Your task to perform on an android device: Open Chrome and go to settings Image 0: 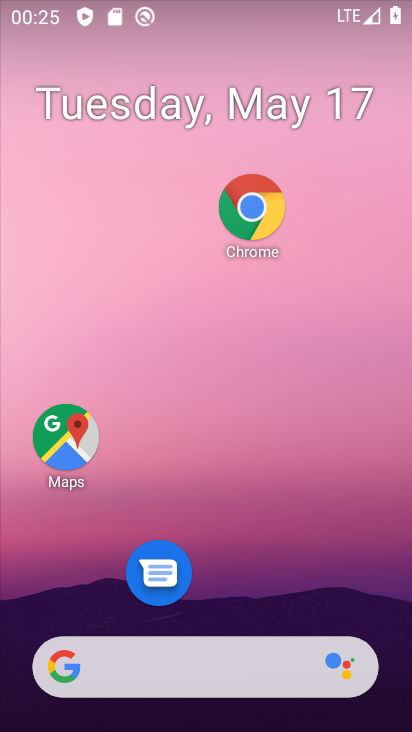
Step 0: drag from (296, 663) to (245, 29)
Your task to perform on an android device: Open Chrome and go to settings Image 1: 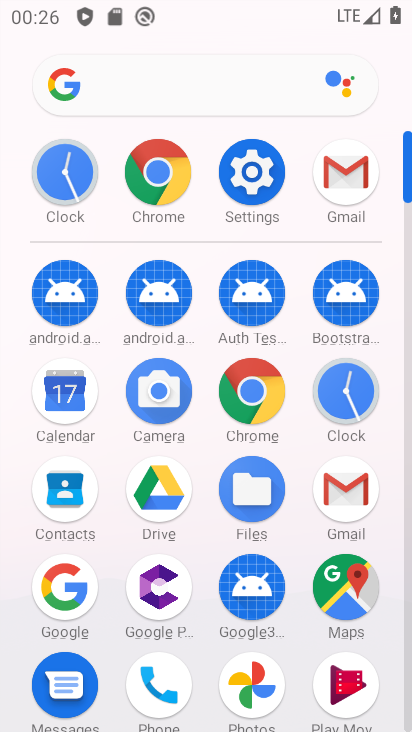
Step 1: click (239, 409)
Your task to perform on an android device: Open Chrome and go to settings Image 2: 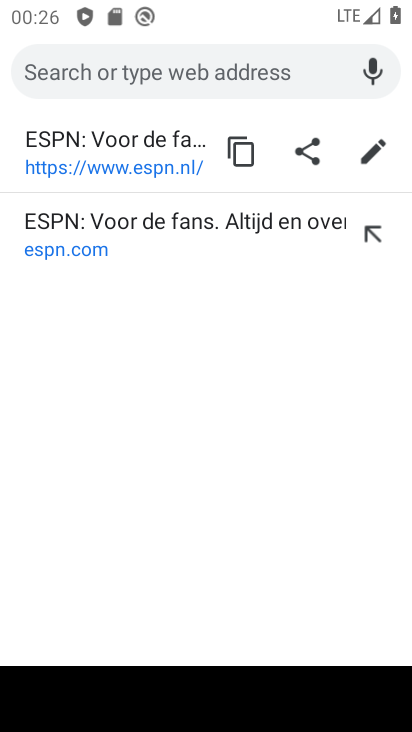
Step 2: press back button
Your task to perform on an android device: Open Chrome and go to settings Image 3: 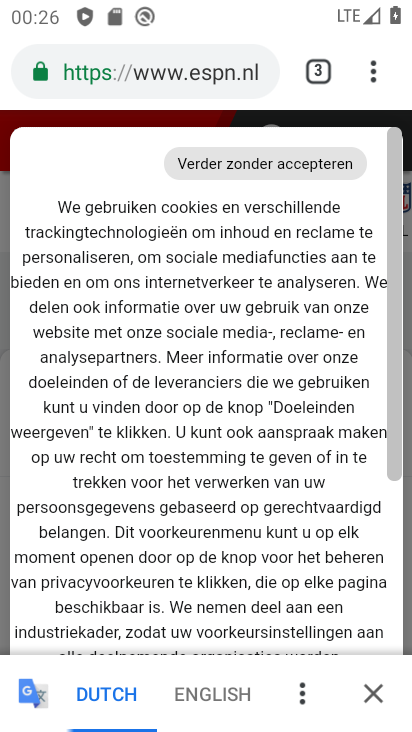
Step 3: click (374, 64)
Your task to perform on an android device: Open Chrome and go to settings Image 4: 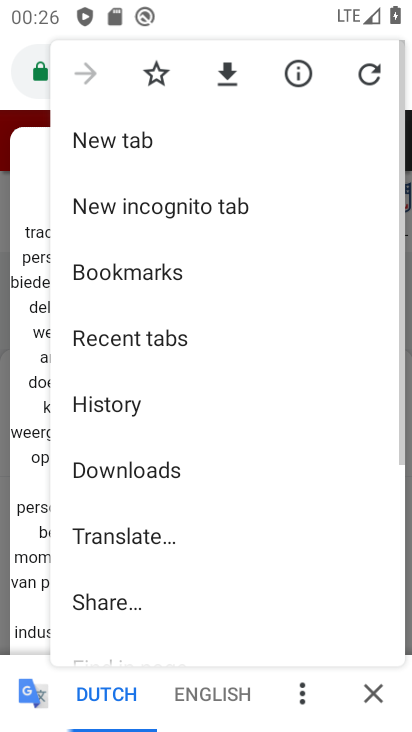
Step 4: drag from (258, 606) to (287, 32)
Your task to perform on an android device: Open Chrome and go to settings Image 5: 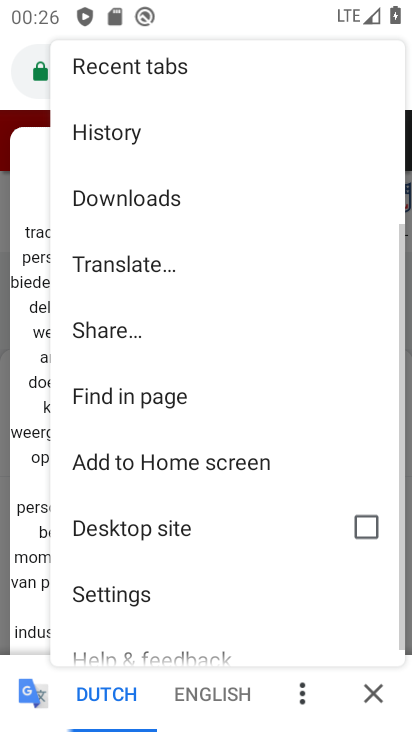
Step 5: click (156, 566)
Your task to perform on an android device: Open Chrome and go to settings Image 6: 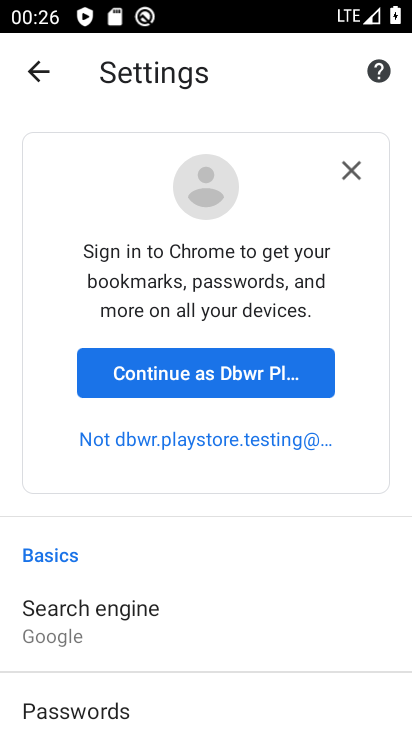
Step 6: task complete